Your task to perform on an android device: turn on bluetooth scan Image 0: 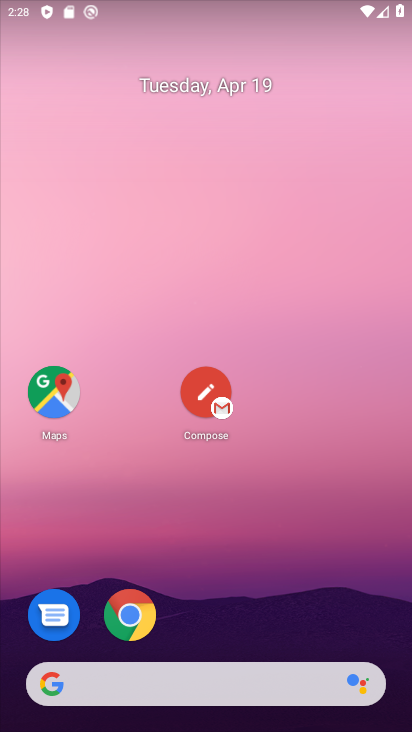
Step 0: drag from (235, 496) to (196, 7)
Your task to perform on an android device: turn on bluetooth scan Image 1: 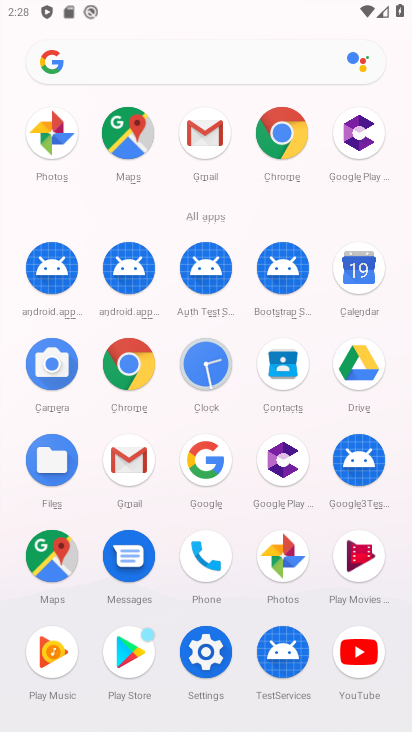
Step 1: drag from (235, 564) to (255, 155)
Your task to perform on an android device: turn on bluetooth scan Image 2: 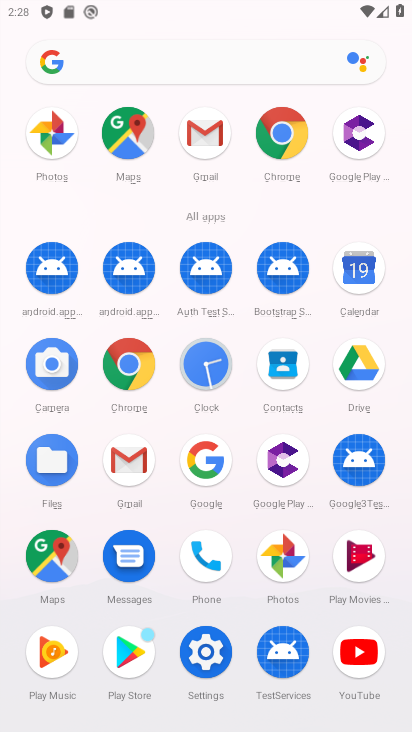
Step 2: click (208, 650)
Your task to perform on an android device: turn on bluetooth scan Image 3: 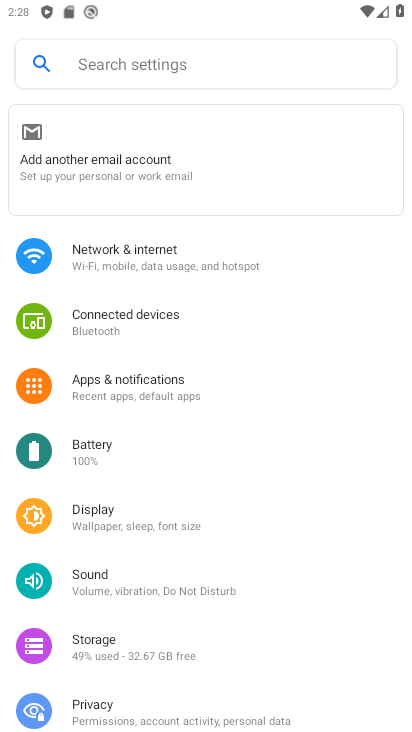
Step 3: drag from (171, 620) to (166, 264)
Your task to perform on an android device: turn on bluetooth scan Image 4: 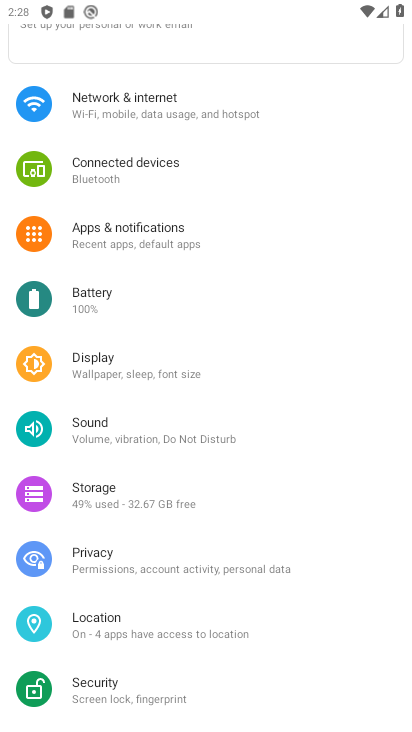
Step 4: click (112, 631)
Your task to perform on an android device: turn on bluetooth scan Image 5: 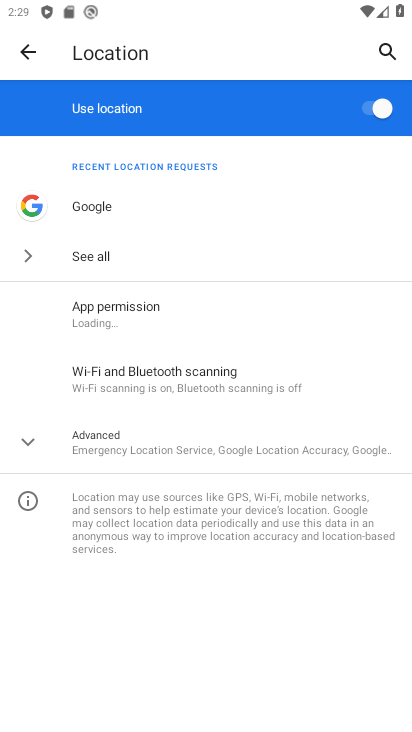
Step 5: click (228, 377)
Your task to perform on an android device: turn on bluetooth scan Image 6: 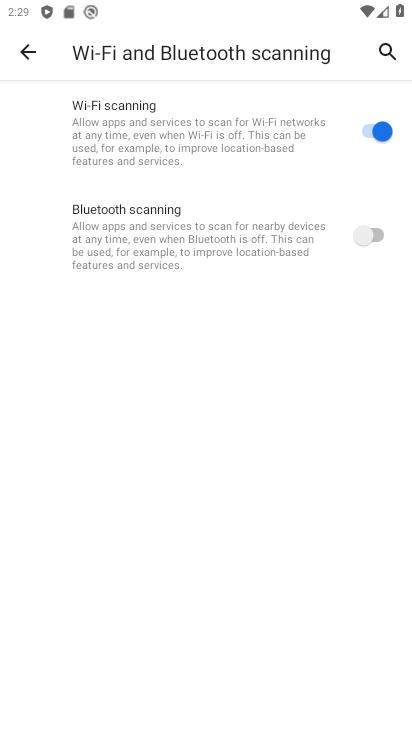
Step 6: click (191, 215)
Your task to perform on an android device: turn on bluetooth scan Image 7: 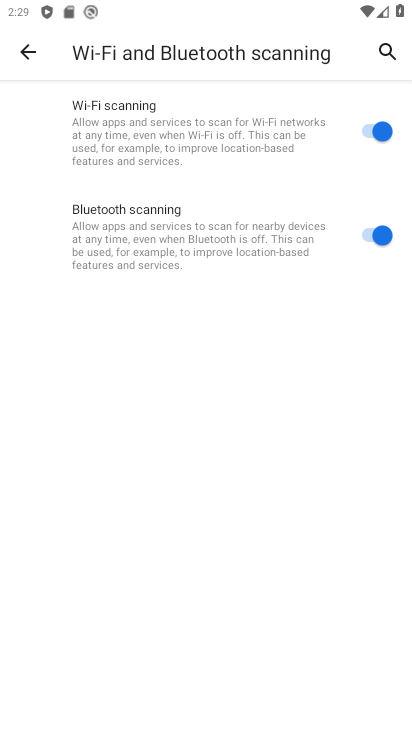
Step 7: task complete